Your task to perform on an android device: open sync settings in chrome Image 0: 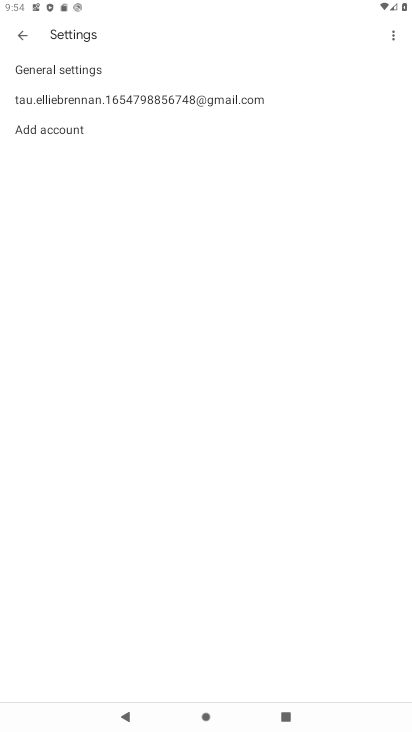
Step 0: press home button
Your task to perform on an android device: open sync settings in chrome Image 1: 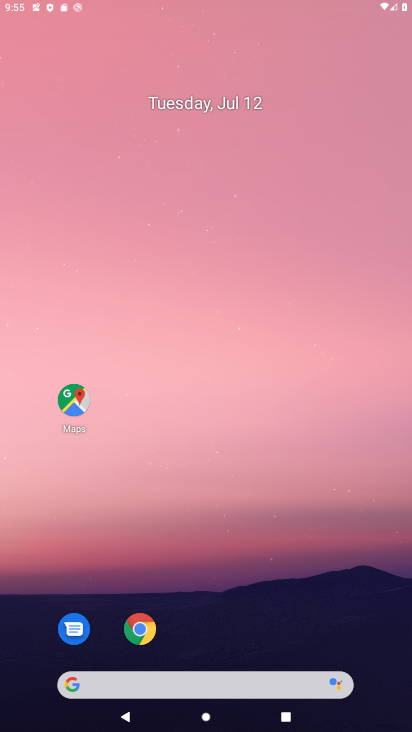
Step 1: drag from (238, 694) to (309, 68)
Your task to perform on an android device: open sync settings in chrome Image 2: 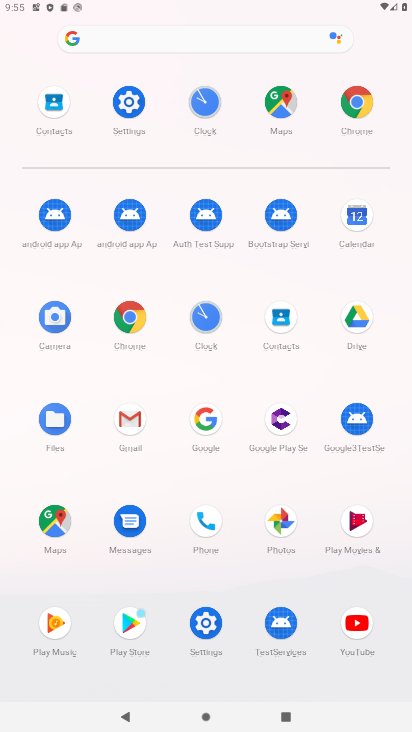
Step 2: click (137, 313)
Your task to perform on an android device: open sync settings in chrome Image 3: 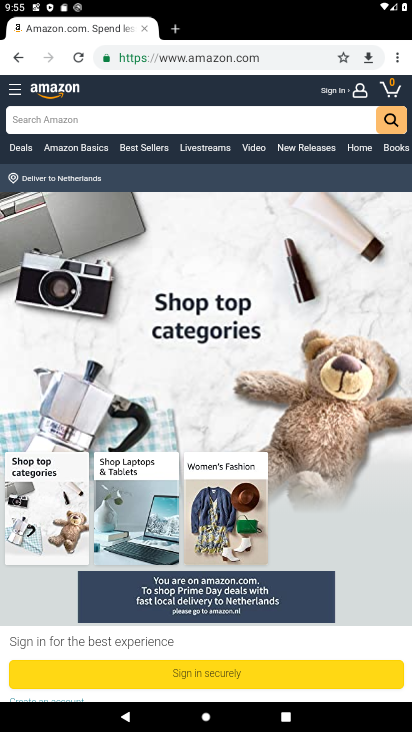
Step 3: drag from (393, 61) to (291, 390)
Your task to perform on an android device: open sync settings in chrome Image 4: 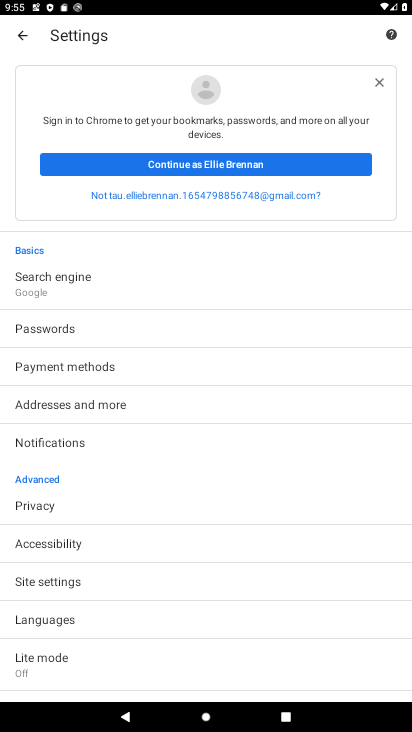
Step 4: click (126, 582)
Your task to perform on an android device: open sync settings in chrome Image 5: 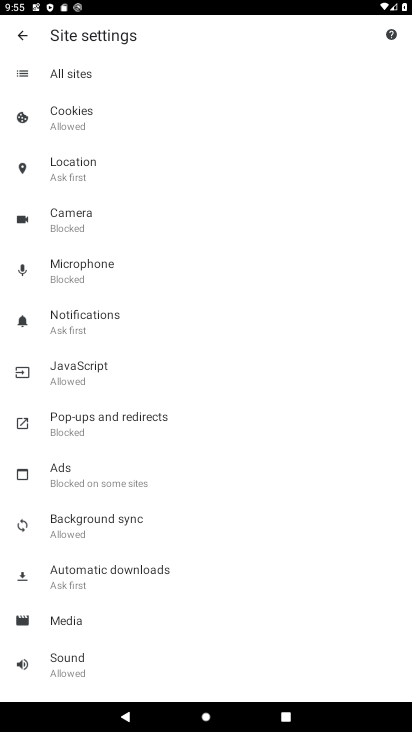
Step 5: click (136, 521)
Your task to perform on an android device: open sync settings in chrome Image 6: 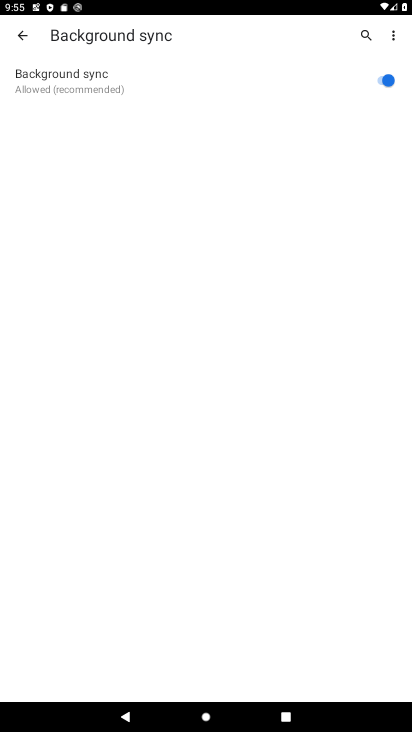
Step 6: task complete